Your task to perform on an android device: Do I have any events this weekend? Image 0: 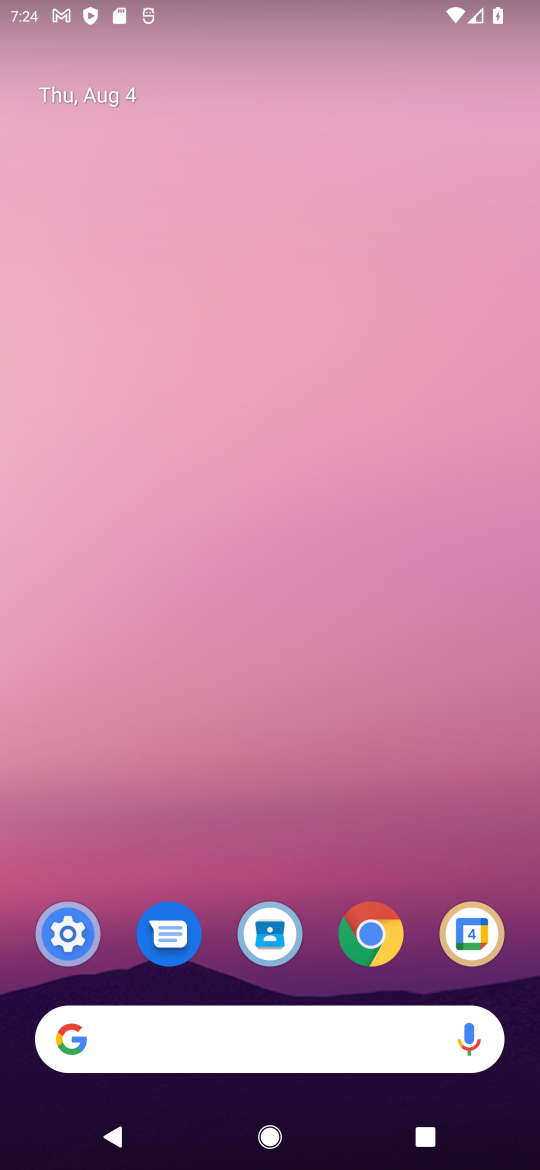
Step 0: drag from (192, 661) to (168, 136)
Your task to perform on an android device: Do I have any events this weekend? Image 1: 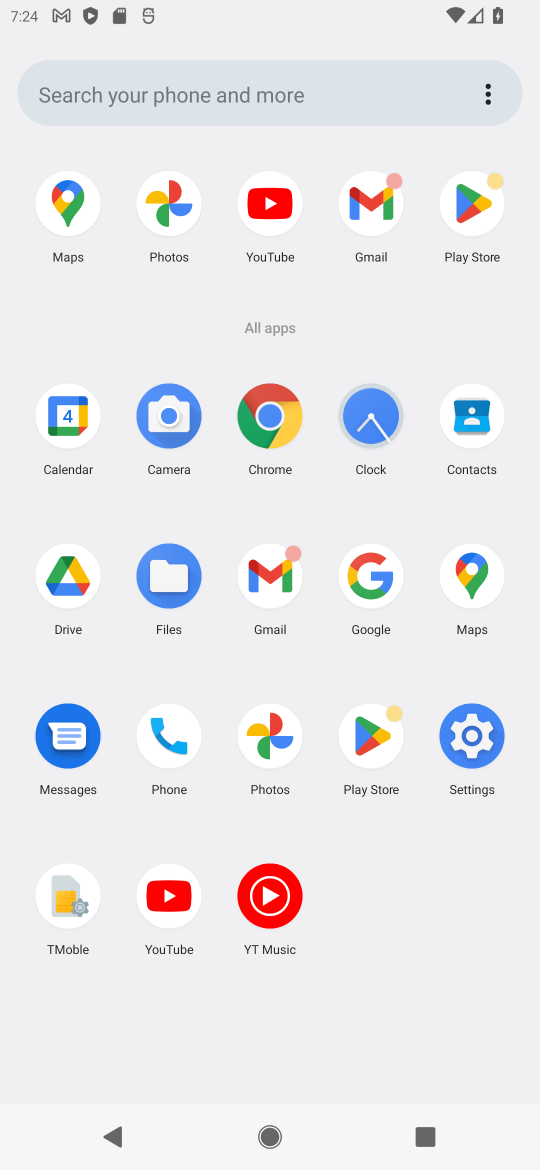
Step 1: click (60, 429)
Your task to perform on an android device: Do I have any events this weekend? Image 2: 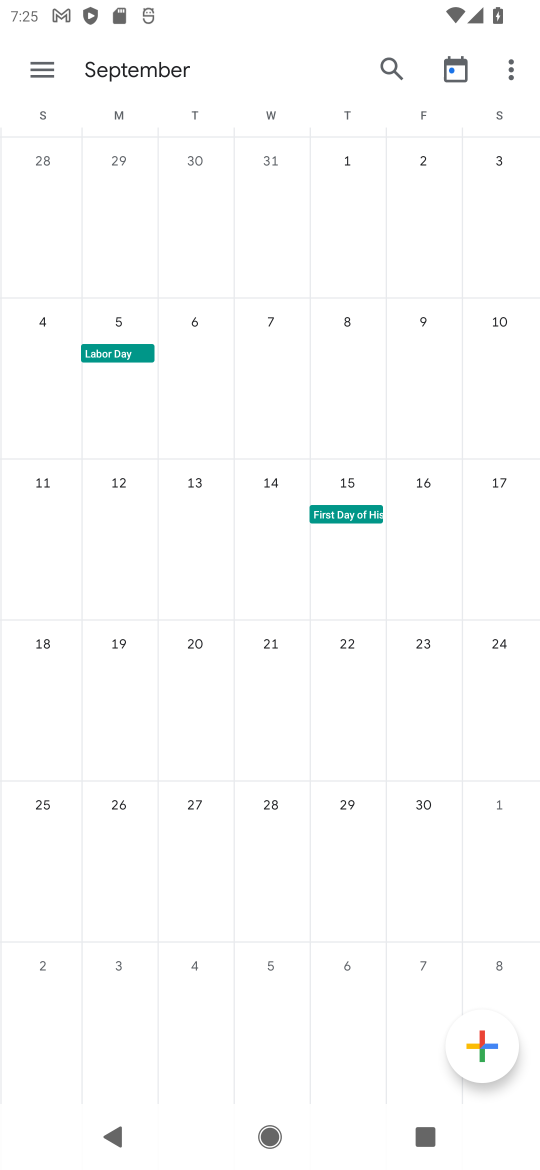
Step 2: click (55, 57)
Your task to perform on an android device: Do I have any events this weekend? Image 3: 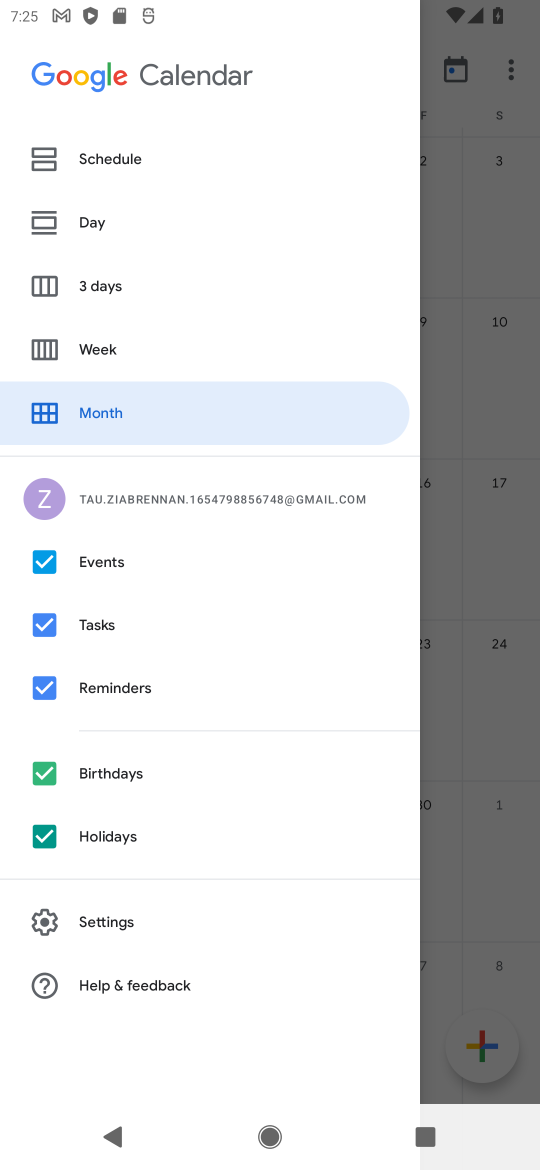
Step 3: click (136, 356)
Your task to perform on an android device: Do I have any events this weekend? Image 4: 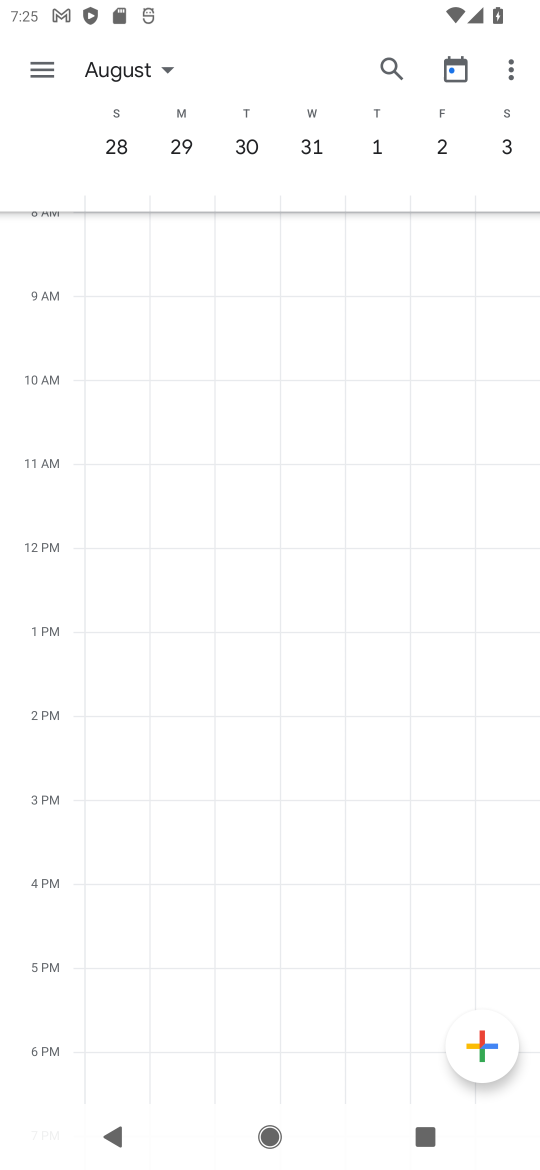
Step 4: task complete